Your task to perform on an android device: Open CNN.com Image 0: 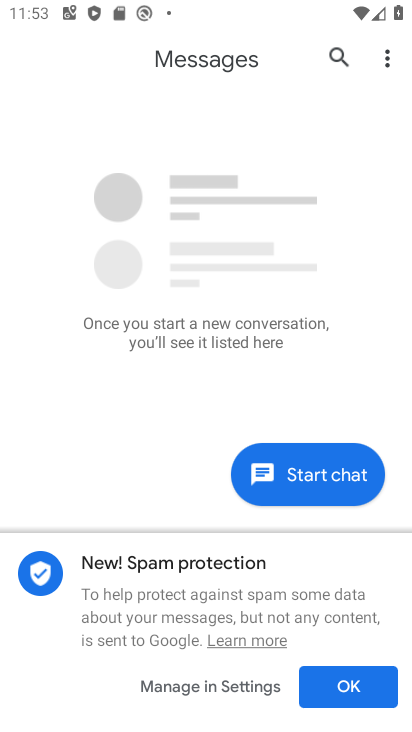
Step 0: press home button
Your task to perform on an android device: Open CNN.com Image 1: 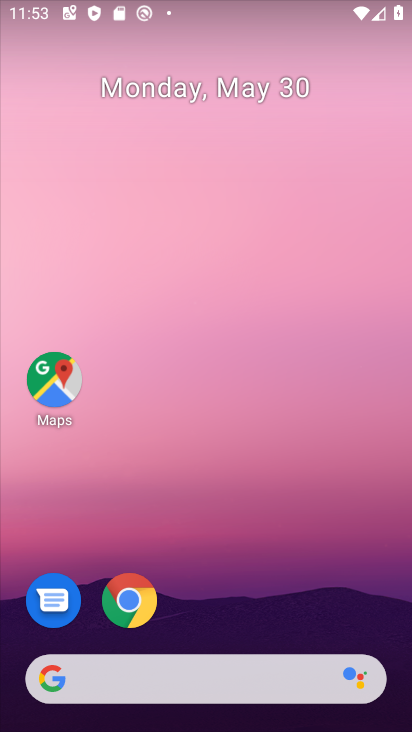
Step 1: click (131, 602)
Your task to perform on an android device: Open CNN.com Image 2: 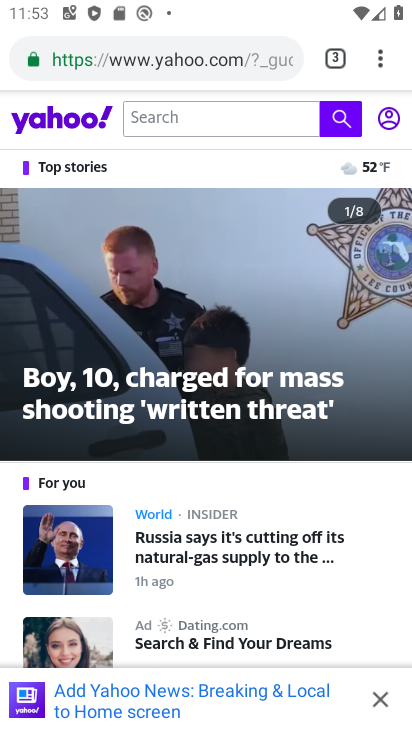
Step 2: click (380, 66)
Your task to perform on an android device: Open CNN.com Image 3: 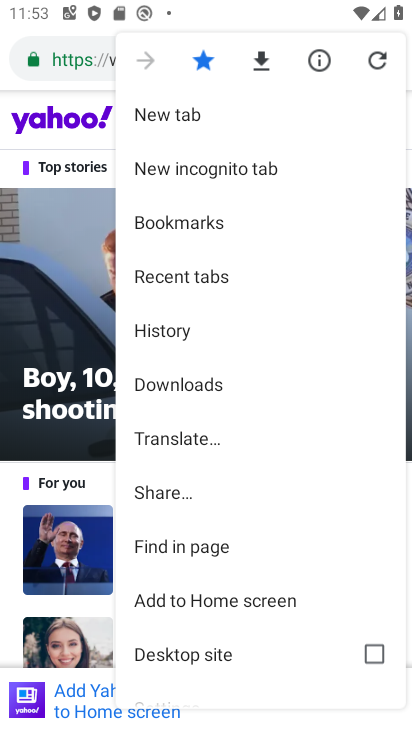
Step 3: click (170, 119)
Your task to perform on an android device: Open CNN.com Image 4: 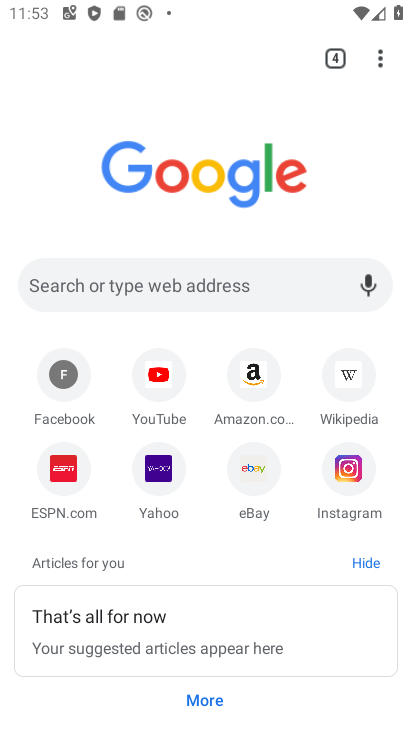
Step 4: click (212, 276)
Your task to perform on an android device: Open CNN.com Image 5: 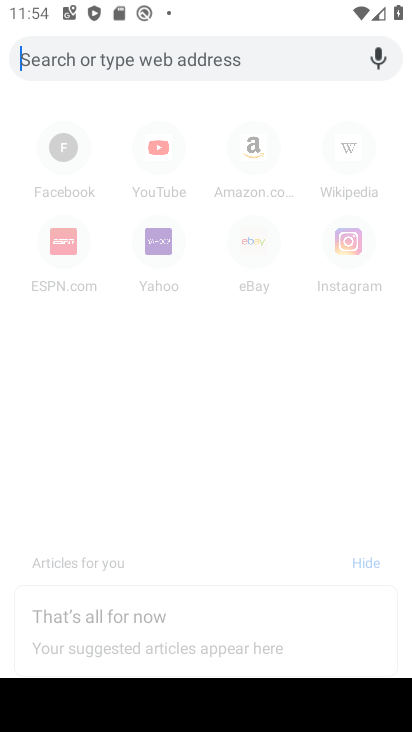
Step 5: type "CNN.com"
Your task to perform on an android device: Open CNN.com Image 6: 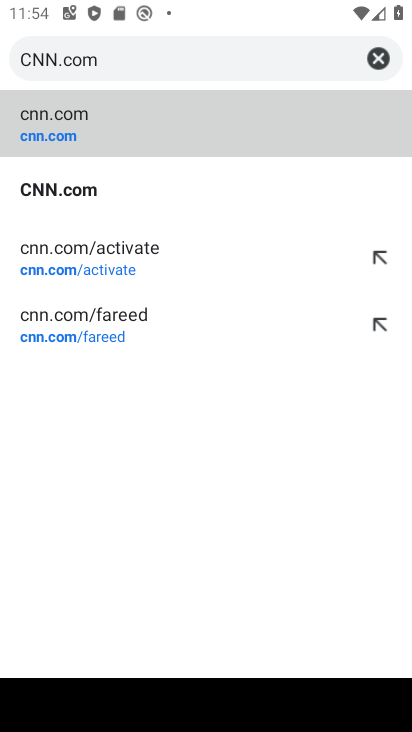
Step 6: click (49, 127)
Your task to perform on an android device: Open CNN.com Image 7: 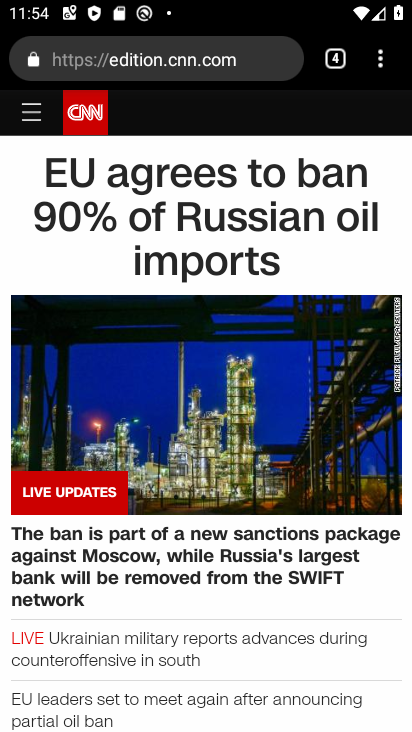
Step 7: task complete